Your task to perform on an android device: Open CNN.com Image 0: 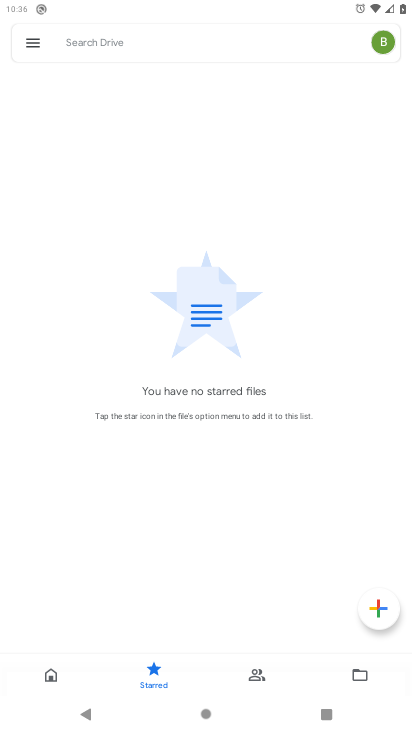
Step 0: press home button
Your task to perform on an android device: Open CNN.com Image 1: 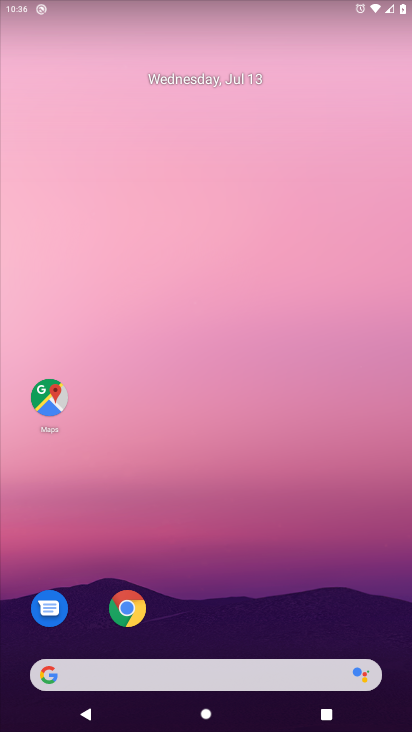
Step 1: click (145, 661)
Your task to perform on an android device: Open CNN.com Image 2: 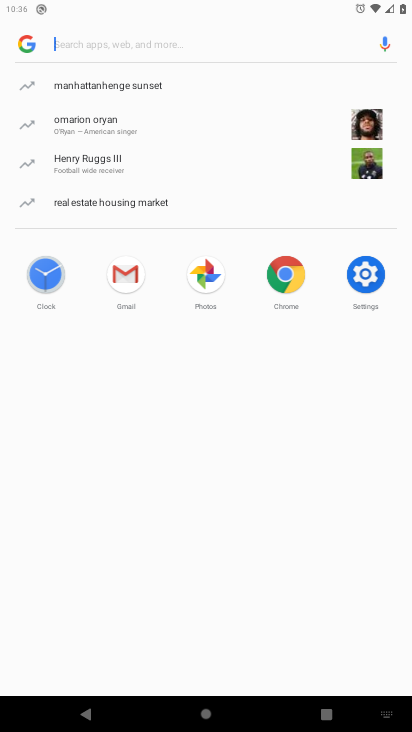
Step 2: type "CNN.com"
Your task to perform on an android device: Open CNN.com Image 3: 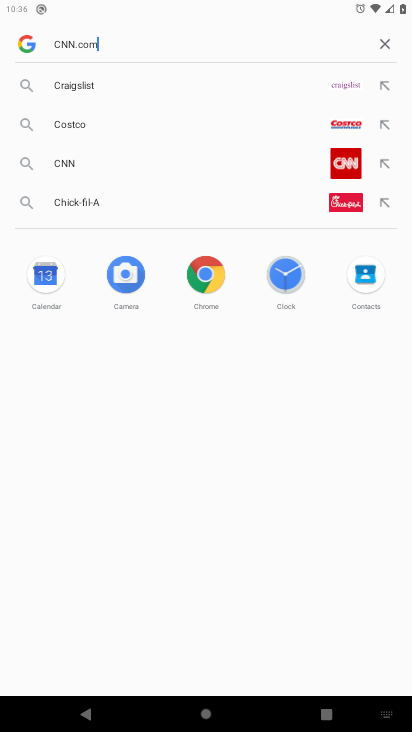
Step 3: type ""
Your task to perform on an android device: Open CNN.com Image 4: 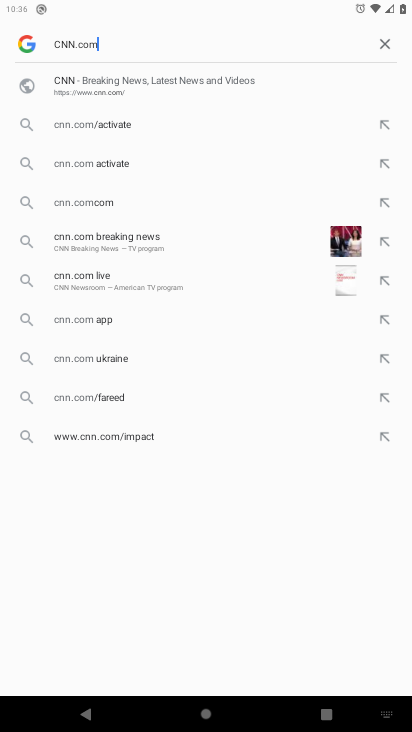
Step 4: type ""
Your task to perform on an android device: Open CNN.com Image 5: 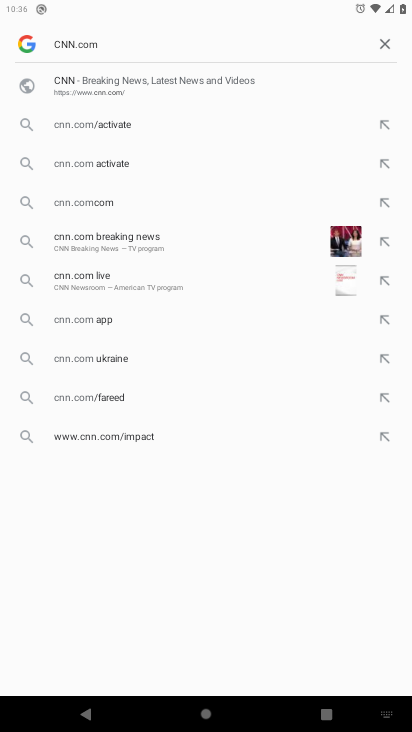
Step 5: type ""
Your task to perform on an android device: Open CNN.com Image 6: 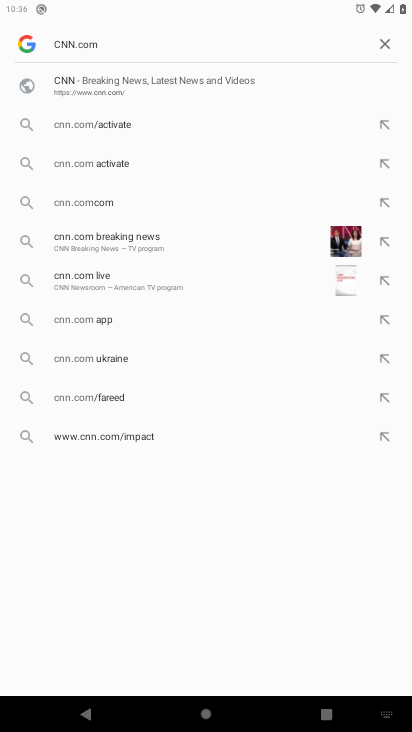
Step 6: task complete